Your task to perform on an android device: Open settings Image 0: 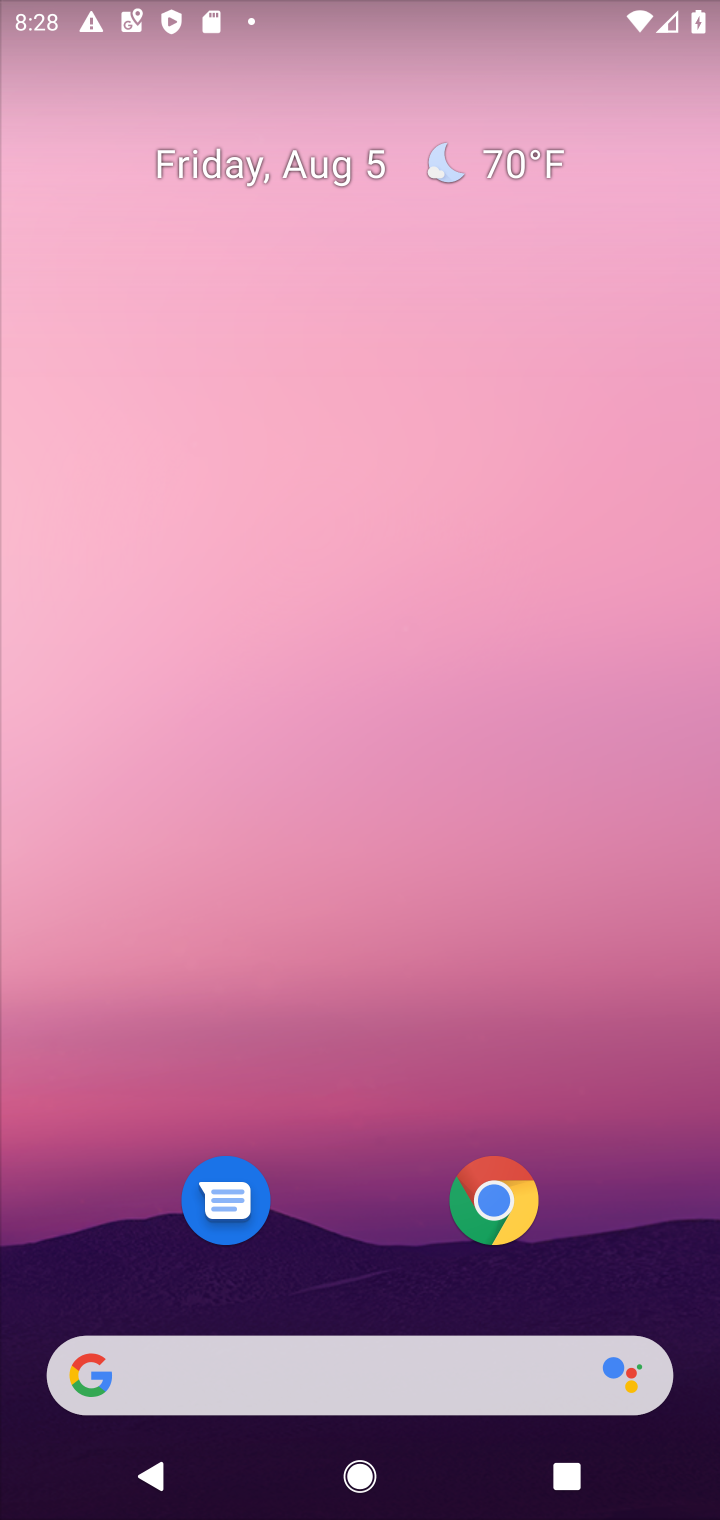
Step 0: drag from (350, 869) to (353, 475)
Your task to perform on an android device: Open settings Image 1: 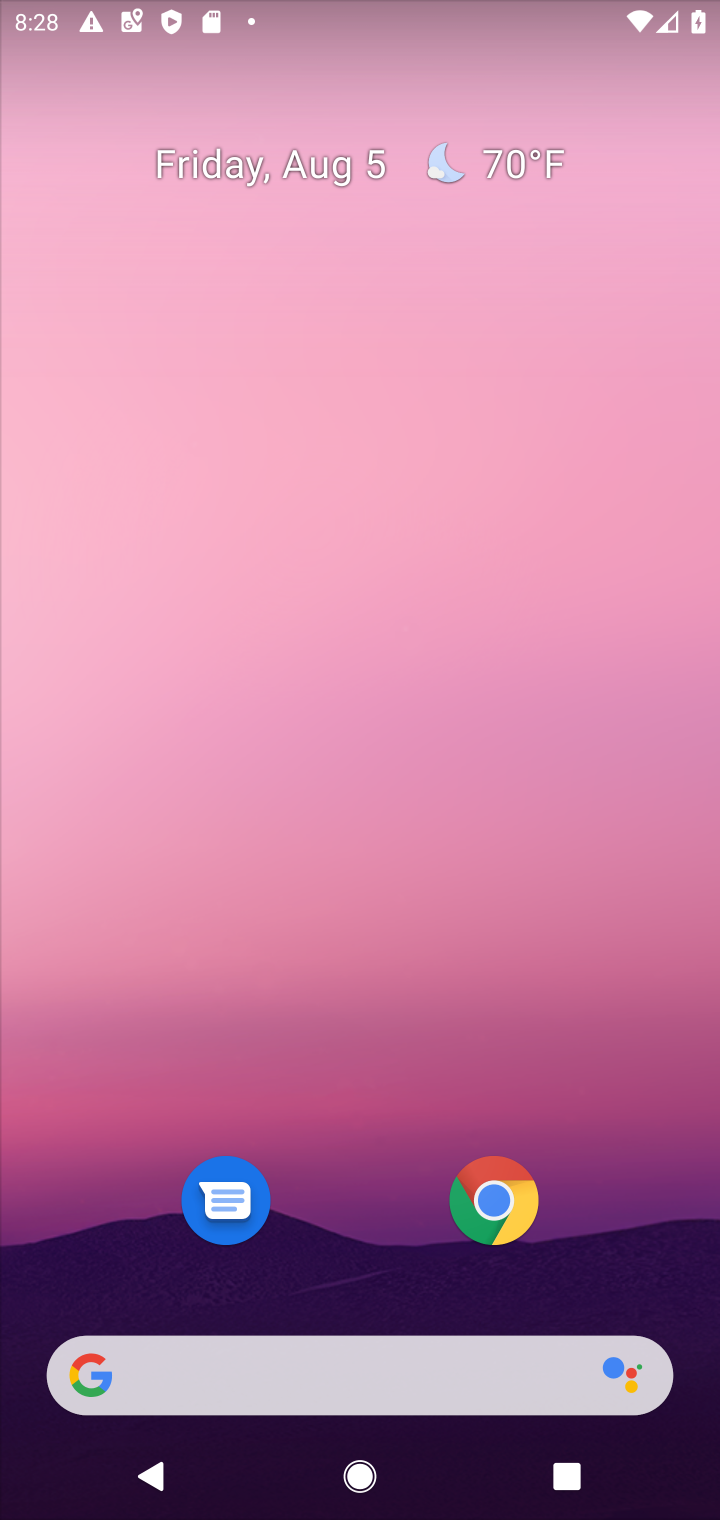
Step 1: drag from (450, 1144) to (465, 171)
Your task to perform on an android device: Open settings Image 2: 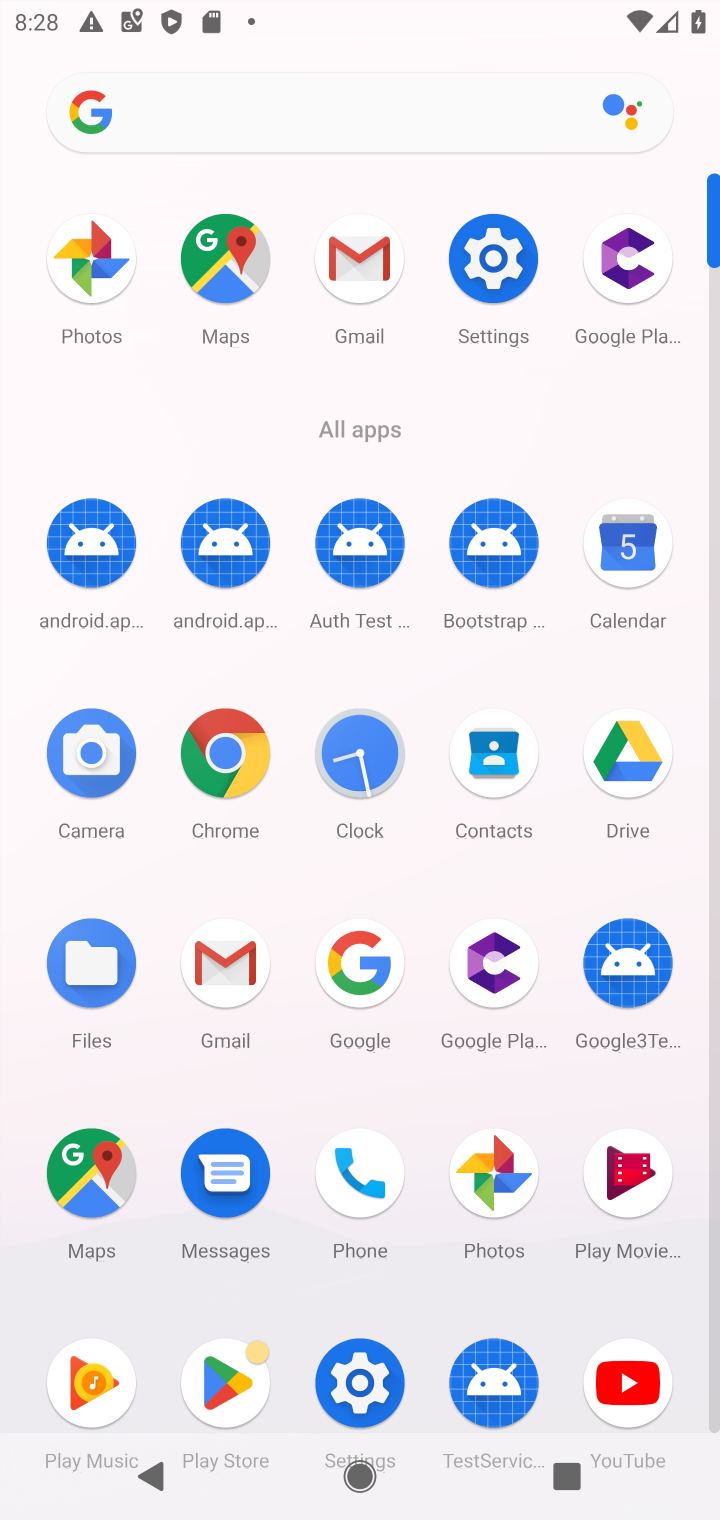
Step 2: click (511, 267)
Your task to perform on an android device: Open settings Image 3: 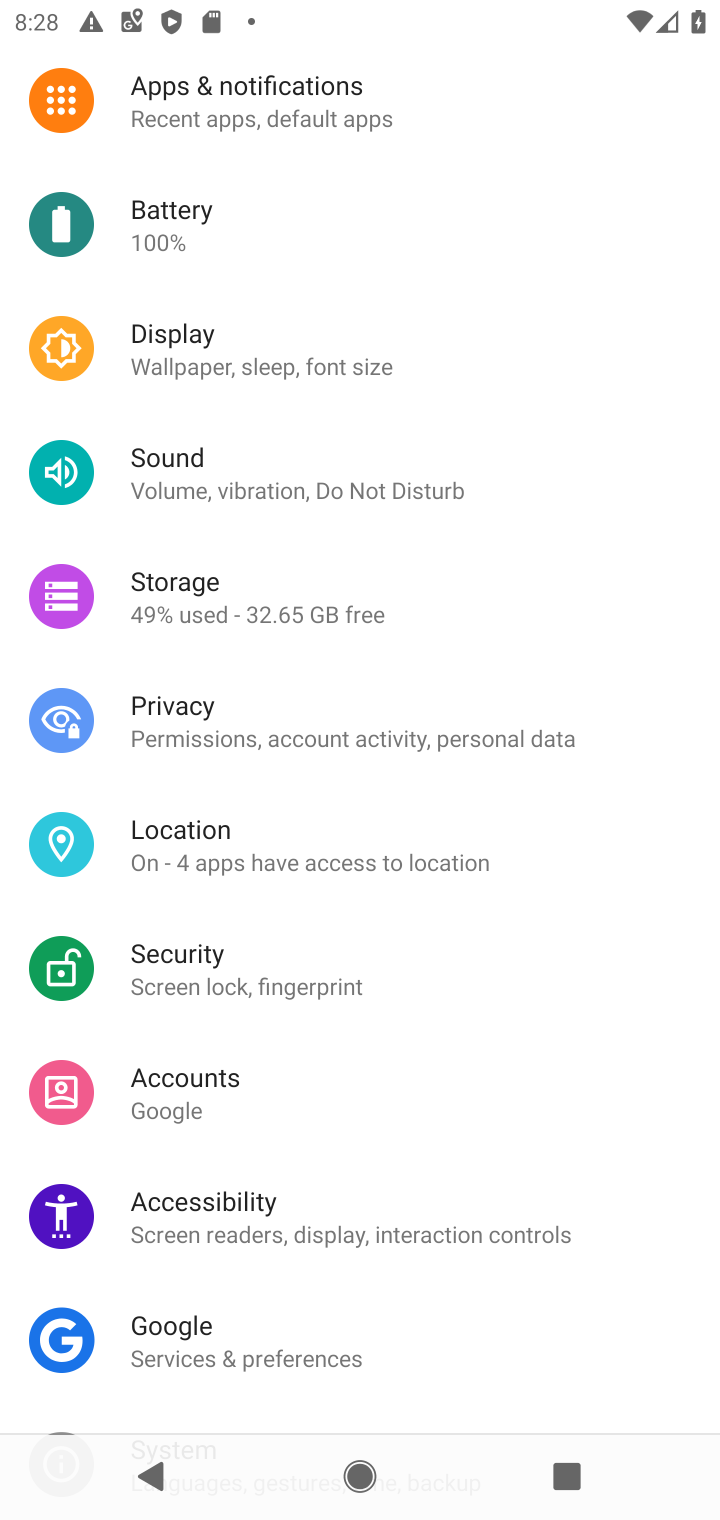
Step 3: task complete